Your task to perform on an android device: Add asus zenbook to the cart on ebay.com Image 0: 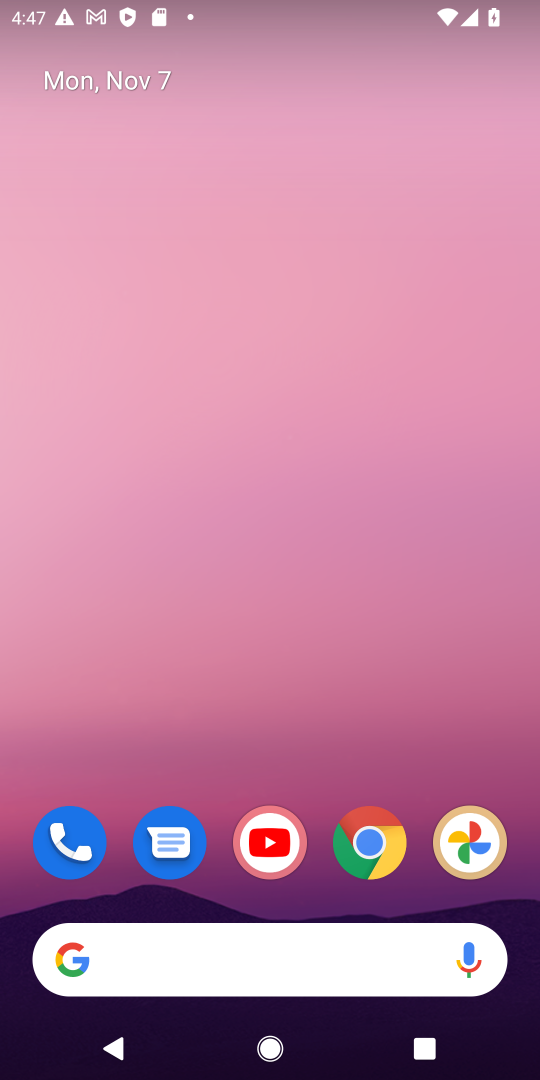
Step 0: drag from (243, 738) to (283, 283)
Your task to perform on an android device: Add asus zenbook to the cart on ebay.com Image 1: 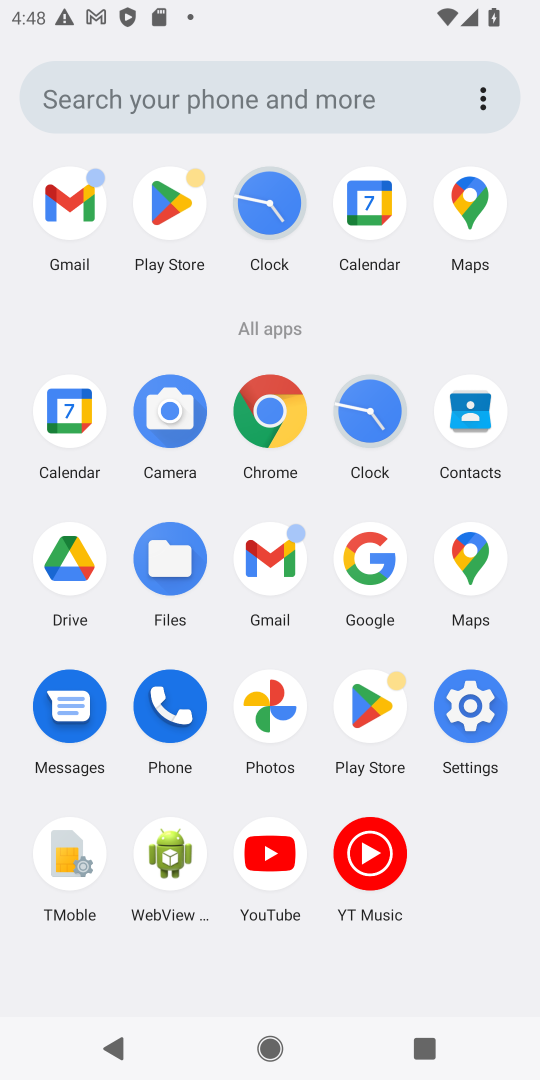
Step 1: click (271, 419)
Your task to perform on an android device: Add asus zenbook to the cart on ebay.com Image 2: 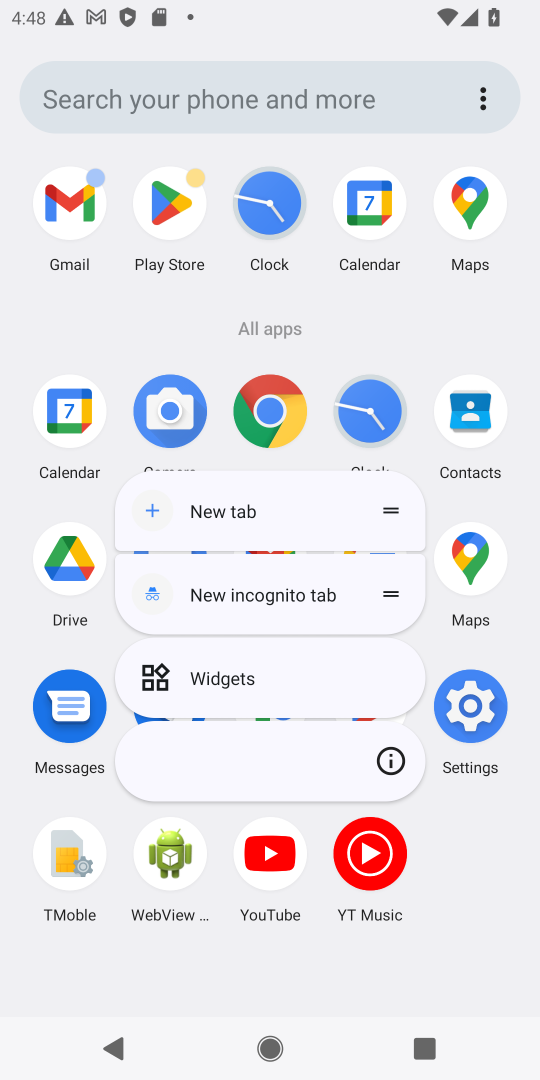
Step 2: click (271, 419)
Your task to perform on an android device: Add asus zenbook to the cart on ebay.com Image 3: 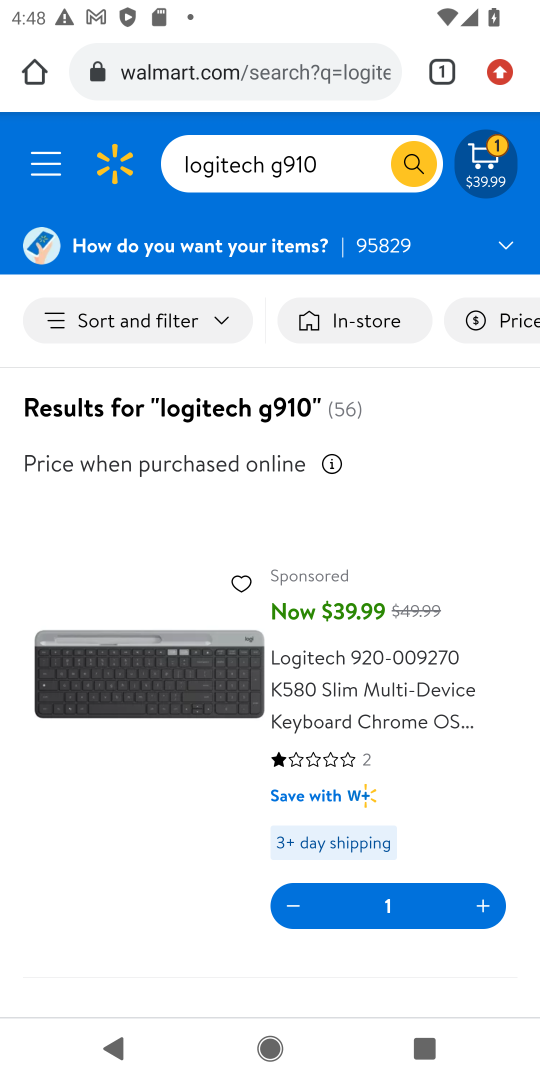
Step 3: click (267, 79)
Your task to perform on an android device: Add asus zenbook to the cart on ebay.com Image 4: 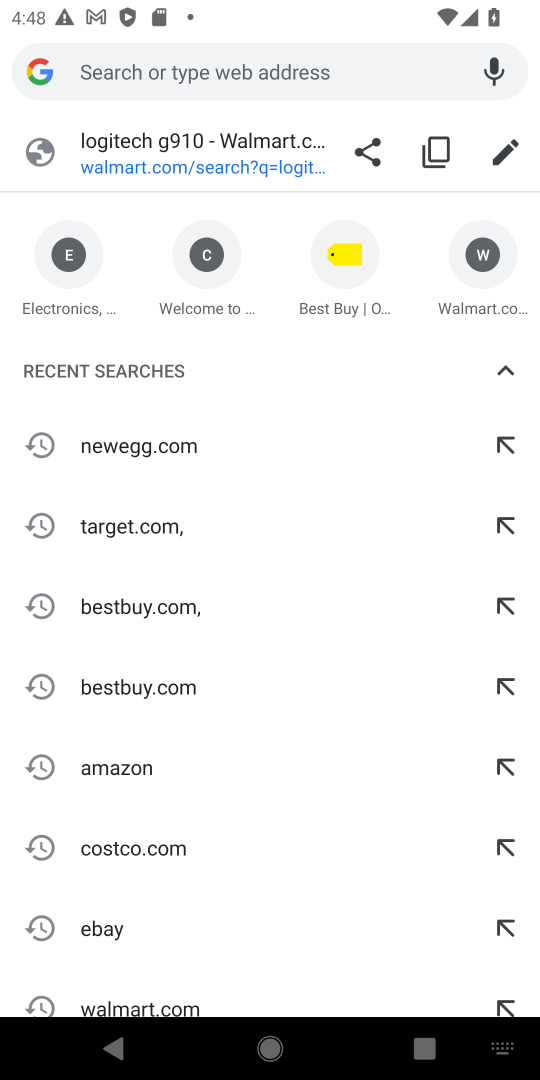
Step 4: type "ebay.com"
Your task to perform on an android device: Add asus zenbook to the cart on ebay.com Image 5: 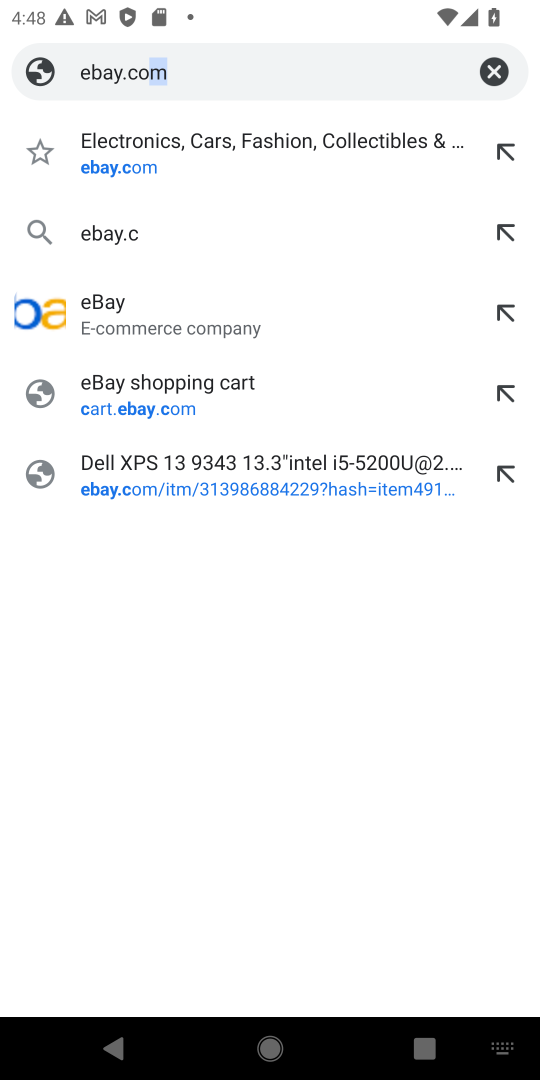
Step 5: press enter
Your task to perform on an android device: Add asus zenbook to the cart on ebay.com Image 6: 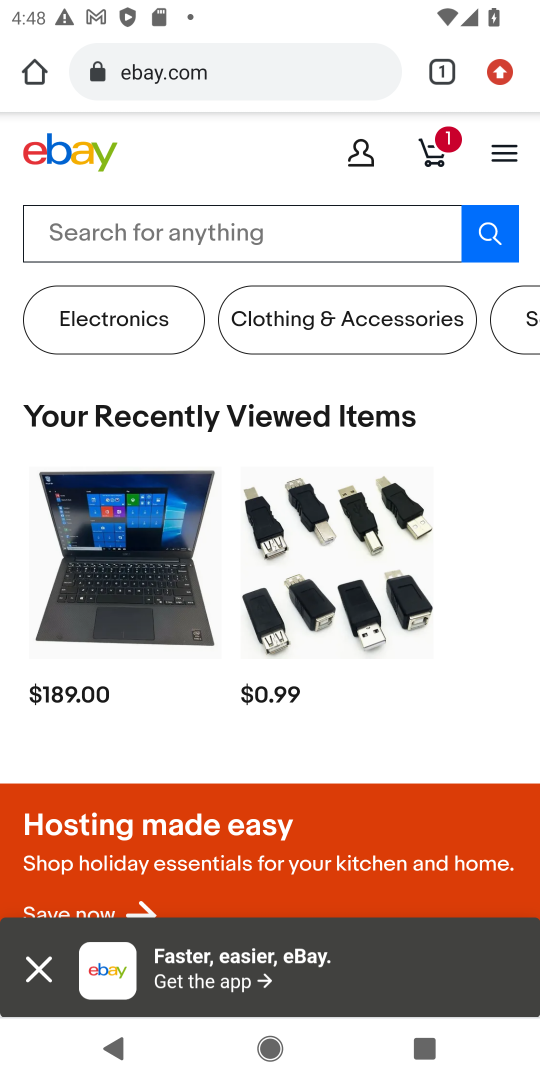
Step 6: click (267, 235)
Your task to perform on an android device: Add asus zenbook to the cart on ebay.com Image 7: 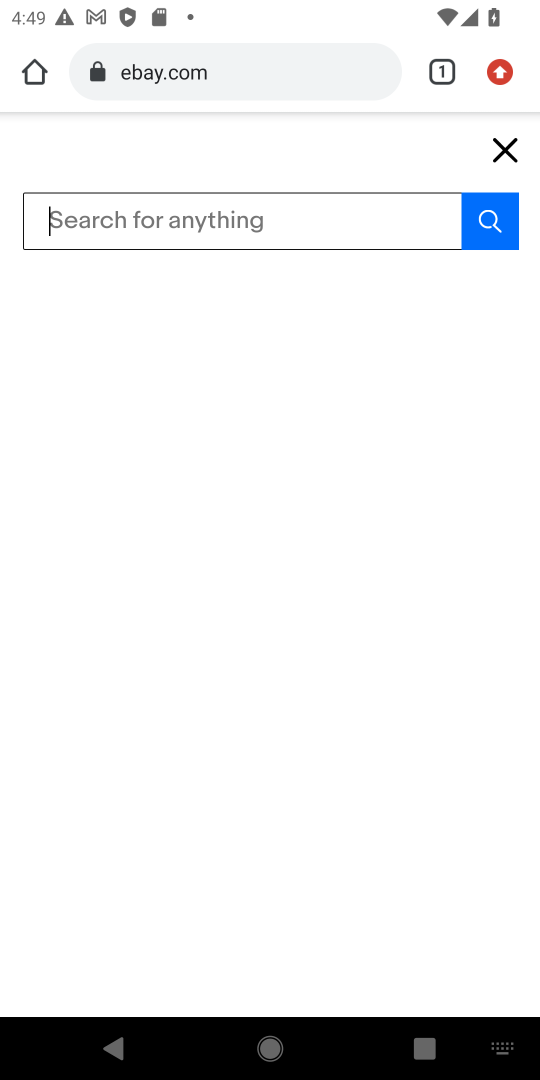
Step 7: type "asus zenbook"
Your task to perform on an android device: Add asus zenbook to the cart on ebay.com Image 8: 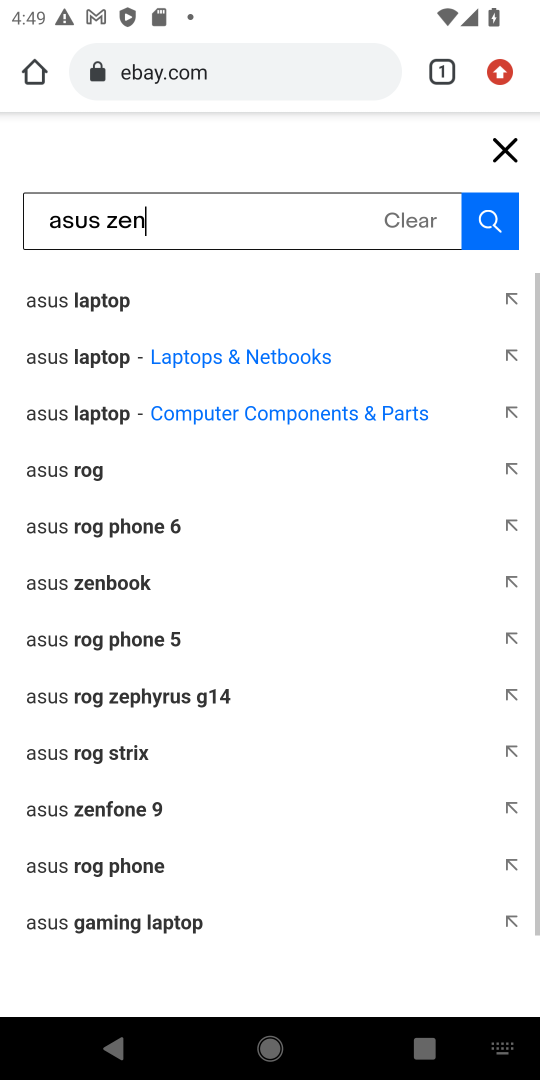
Step 8: press enter
Your task to perform on an android device: Add asus zenbook to the cart on ebay.com Image 9: 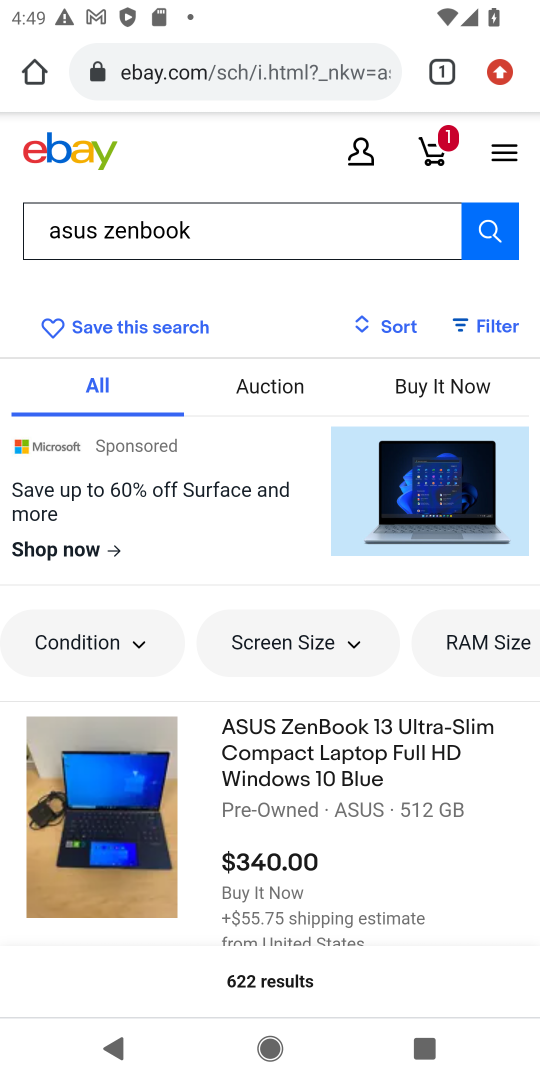
Step 9: drag from (265, 912) to (337, 423)
Your task to perform on an android device: Add asus zenbook to the cart on ebay.com Image 10: 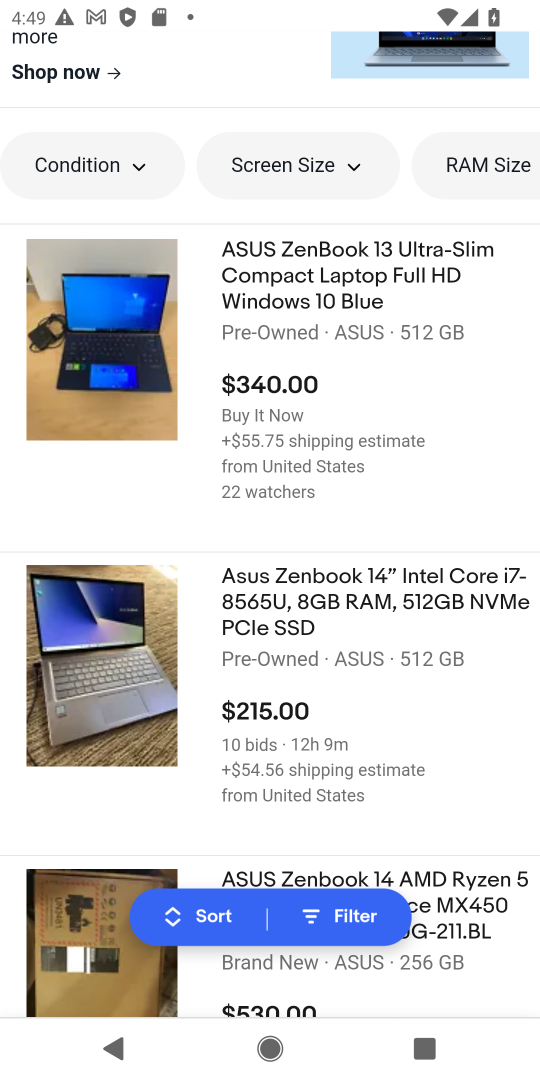
Step 10: click (104, 384)
Your task to perform on an android device: Add asus zenbook to the cart on ebay.com Image 11: 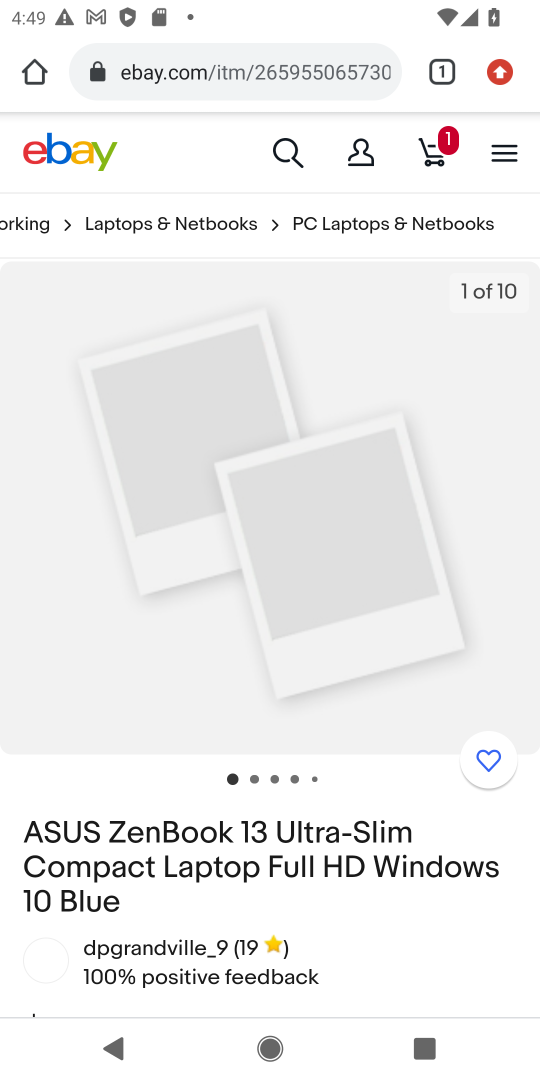
Step 11: drag from (310, 918) to (461, 427)
Your task to perform on an android device: Add asus zenbook to the cart on ebay.com Image 12: 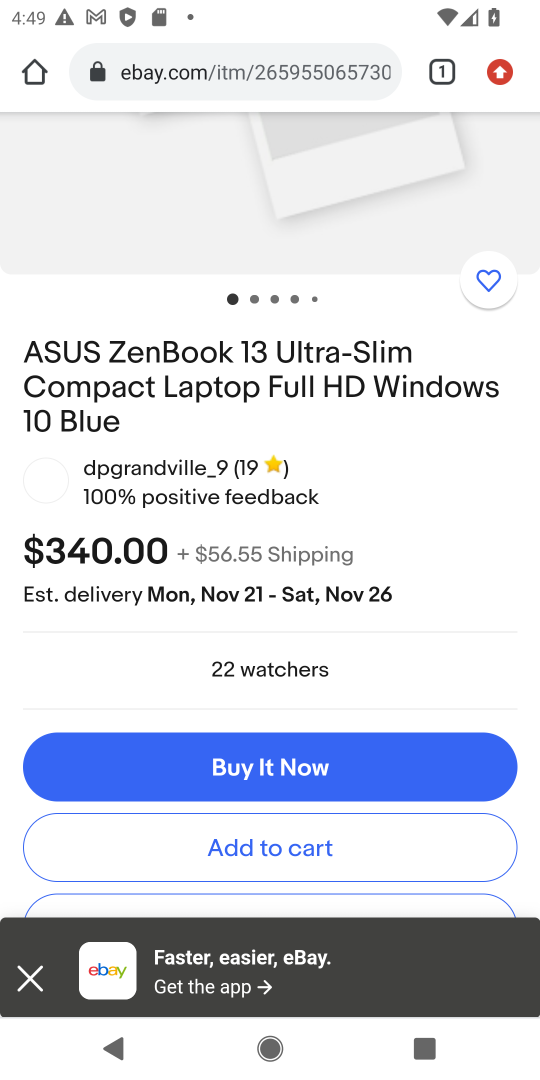
Step 12: click (300, 850)
Your task to perform on an android device: Add asus zenbook to the cart on ebay.com Image 13: 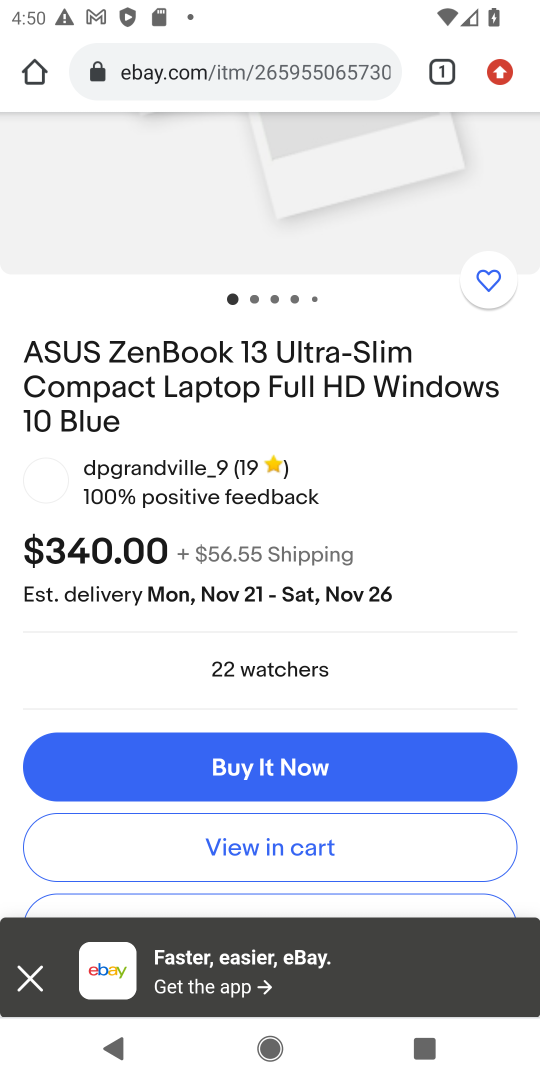
Step 13: task complete